Your task to perform on an android device: Show the shopping cart on costco.com. Search for lenovo thinkpad on costco.com, select the first entry, add it to the cart, then select checkout. Image 0: 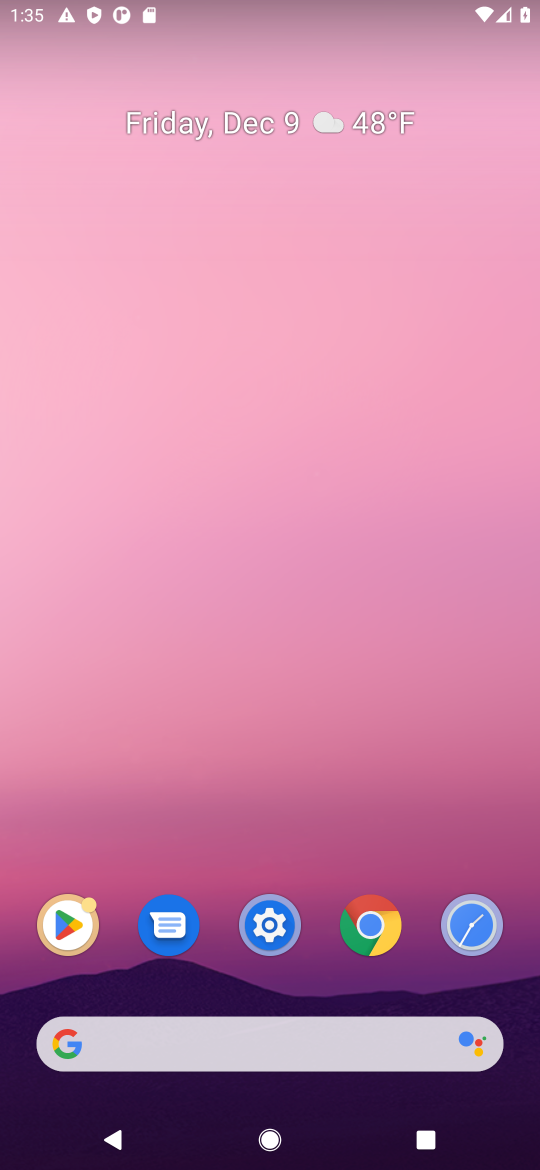
Step 0: click (235, 1036)
Your task to perform on an android device: Show the shopping cart on costco.com. Search for lenovo thinkpad on costco.com, select the first entry, add it to the cart, then select checkout. Image 1: 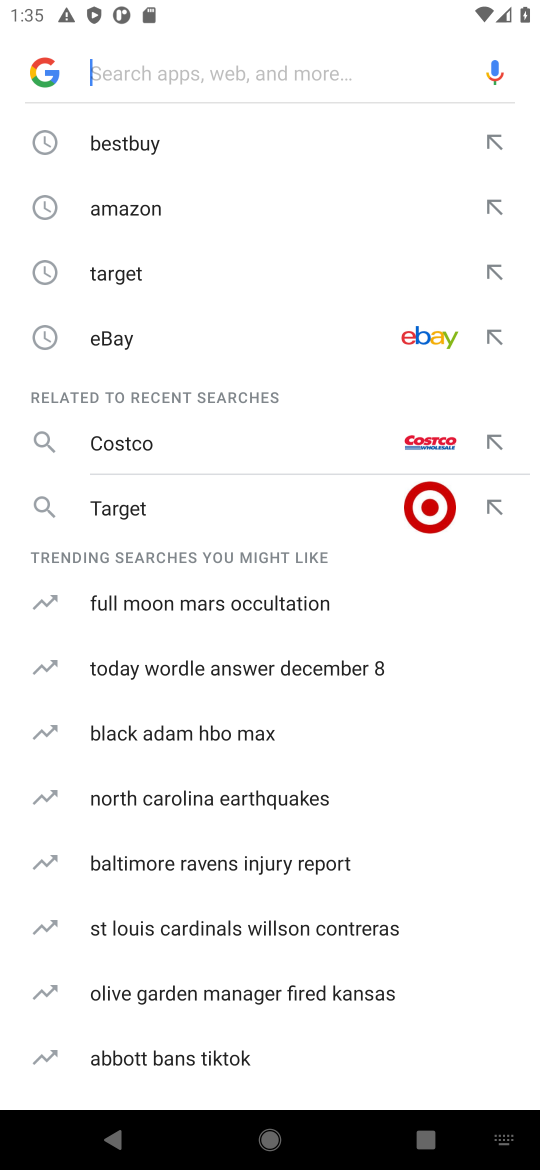
Step 1: click (135, 447)
Your task to perform on an android device: Show the shopping cart on costco.com. Search for lenovo thinkpad on costco.com, select the first entry, add it to the cart, then select checkout. Image 2: 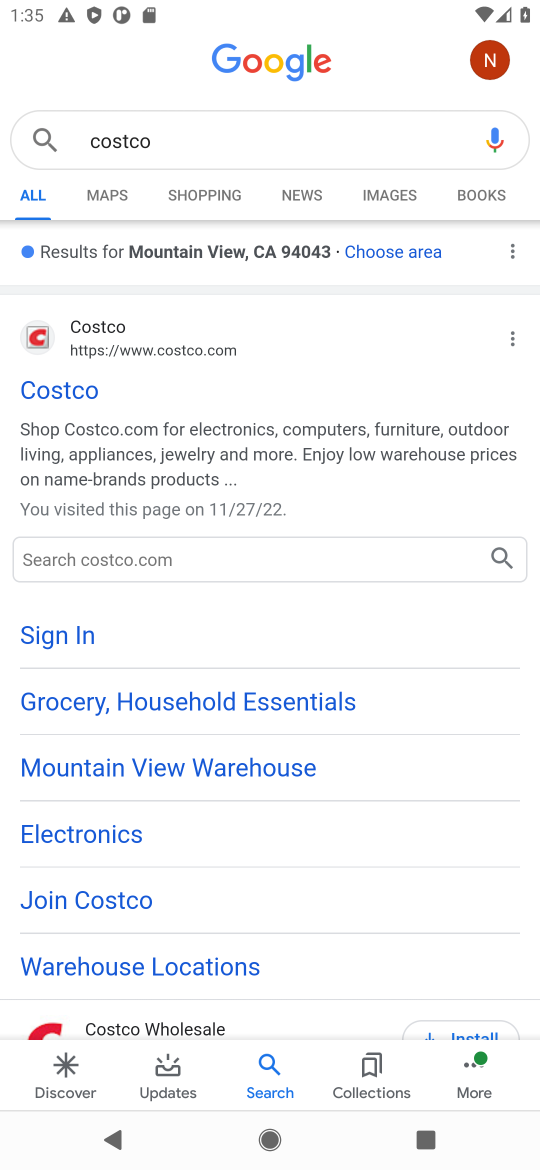
Step 2: click (79, 395)
Your task to perform on an android device: Show the shopping cart on costco.com. Search for lenovo thinkpad on costco.com, select the first entry, add it to the cart, then select checkout. Image 3: 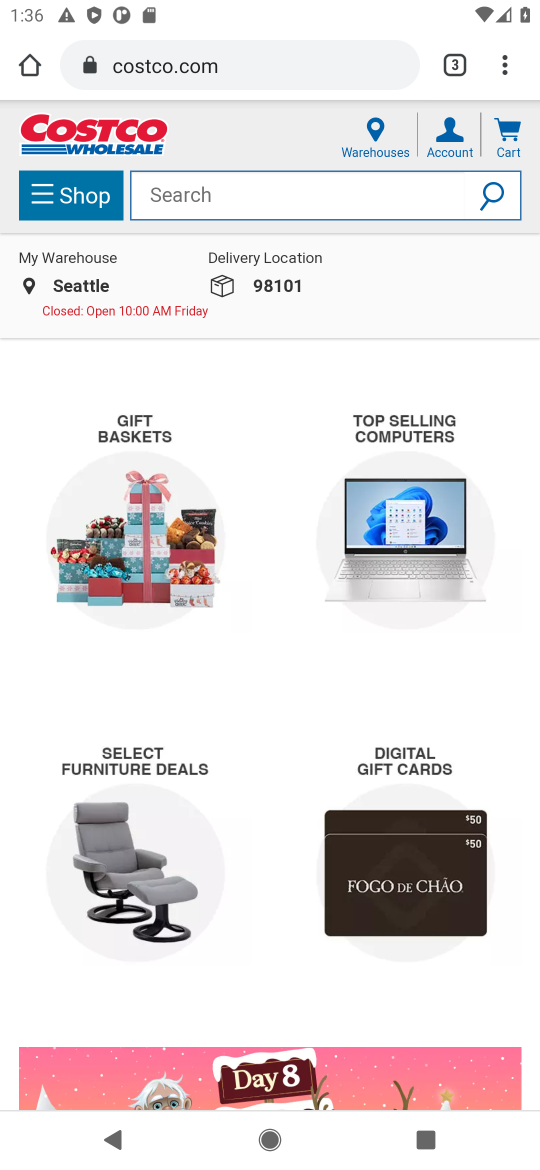
Step 3: click (332, 180)
Your task to perform on an android device: Show the shopping cart on costco.com. Search for lenovo thinkpad on costco.com, select the first entry, add it to the cart, then select checkout. Image 4: 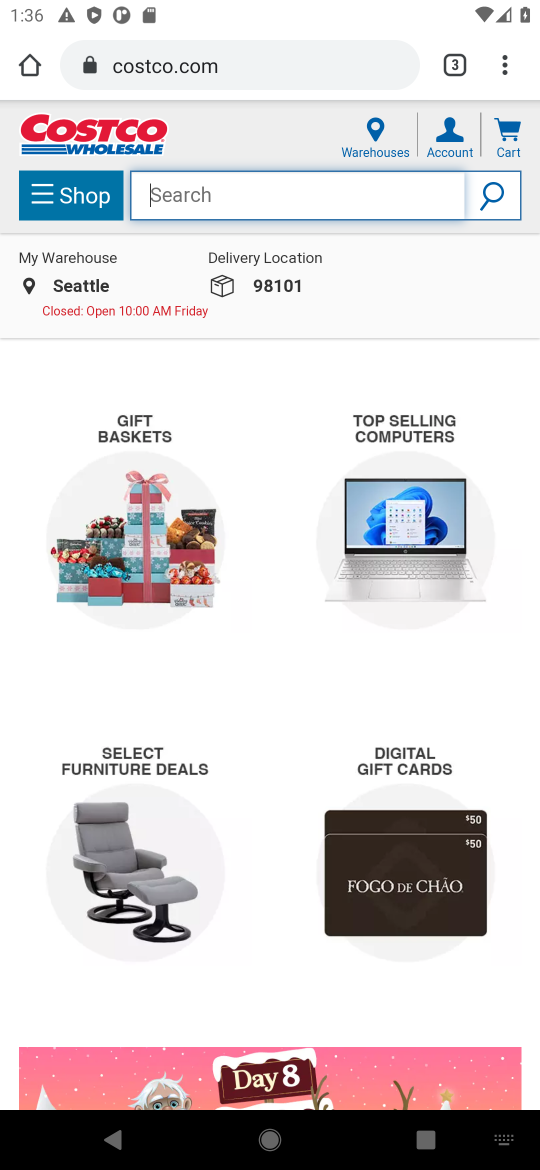
Step 4: type "lenovo thinkpad"
Your task to perform on an android device: Show the shopping cart on costco.com. Search for lenovo thinkpad on costco.com, select the first entry, add it to the cart, then select checkout. Image 5: 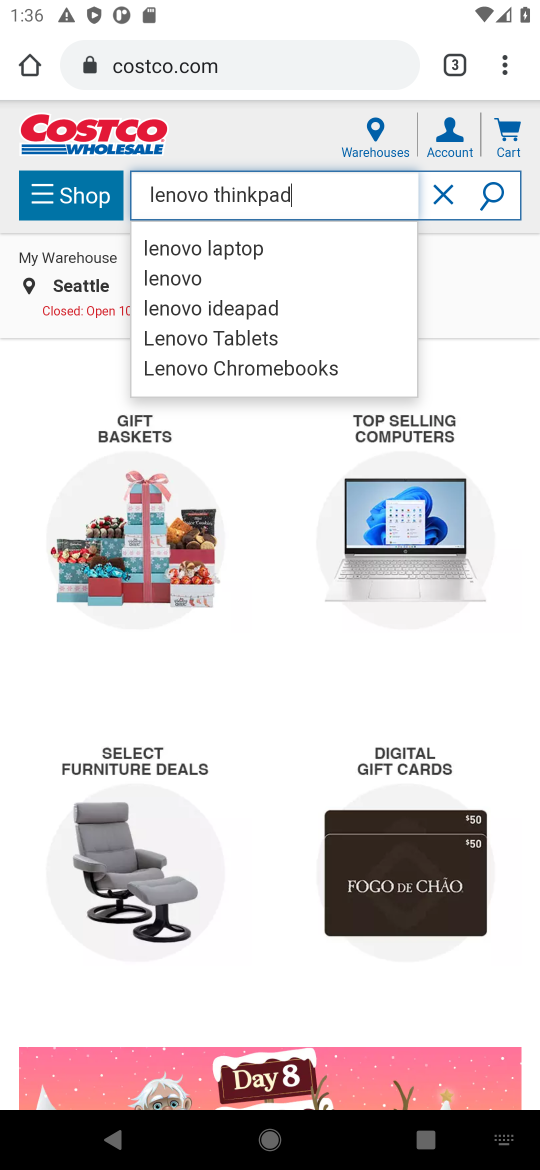
Step 5: click (490, 203)
Your task to perform on an android device: Show the shopping cart on costco.com. Search for lenovo thinkpad on costco.com, select the first entry, add it to the cart, then select checkout. Image 6: 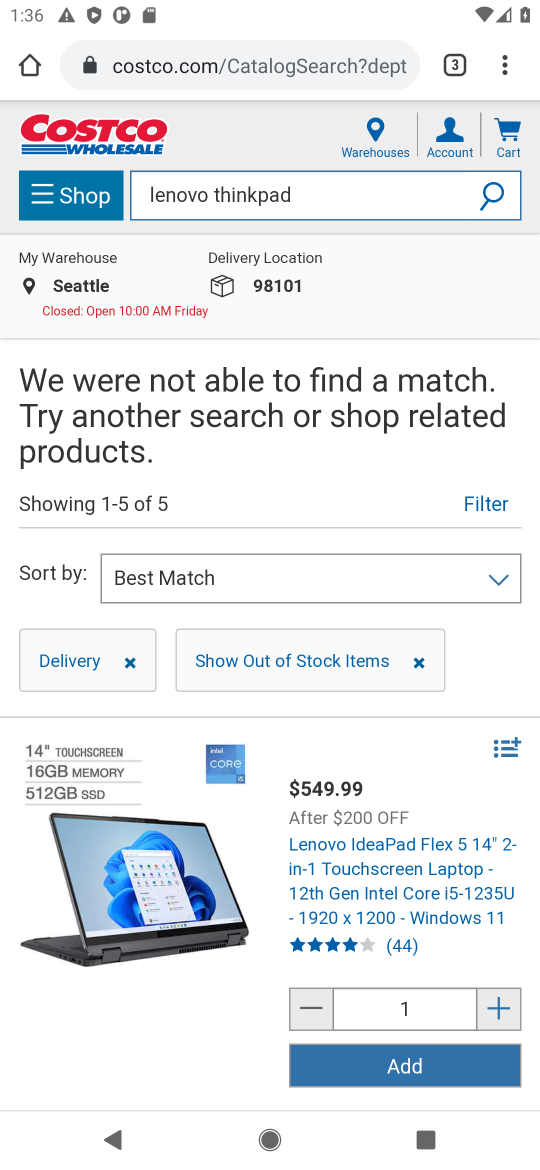
Step 6: click (371, 1051)
Your task to perform on an android device: Show the shopping cart on costco.com. Search for lenovo thinkpad on costco.com, select the first entry, add it to the cart, then select checkout. Image 7: 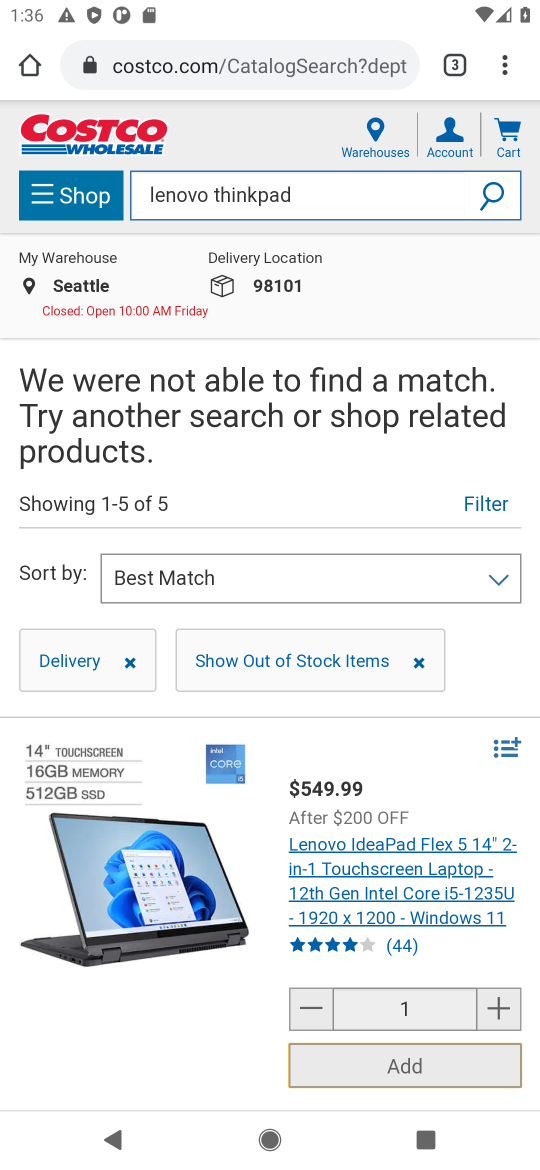
Step 7: task complete